Your task to perform on an android device: Go to ESPN.com Image 0: 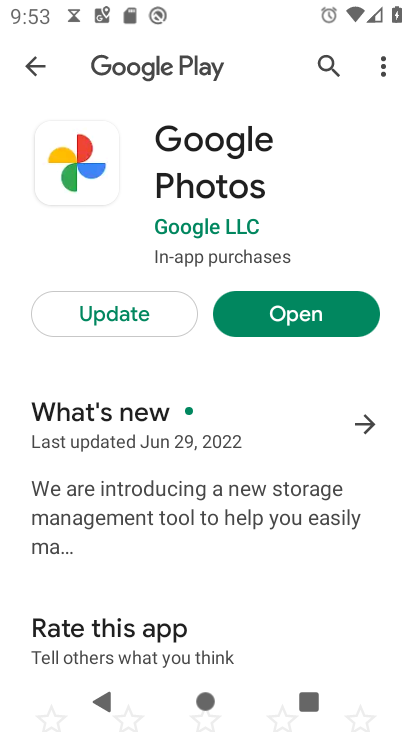
Step 0: press home button
Your task to perform on an android device: Go to ESPN.com Image 1: 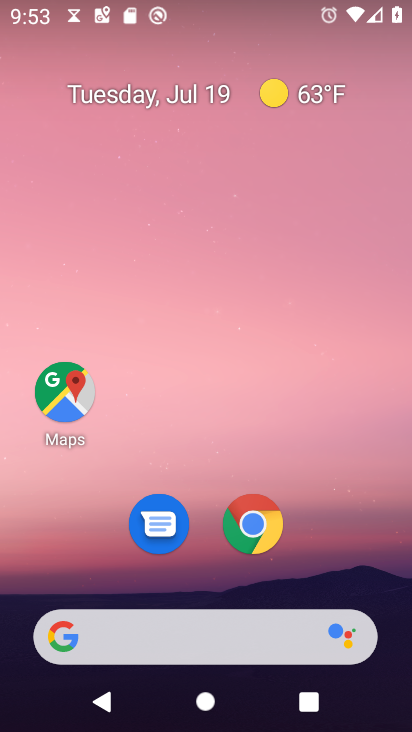
Step 1: click (255, 530)
Your task to perform on an android device: Go to ESPN.com Image 2: 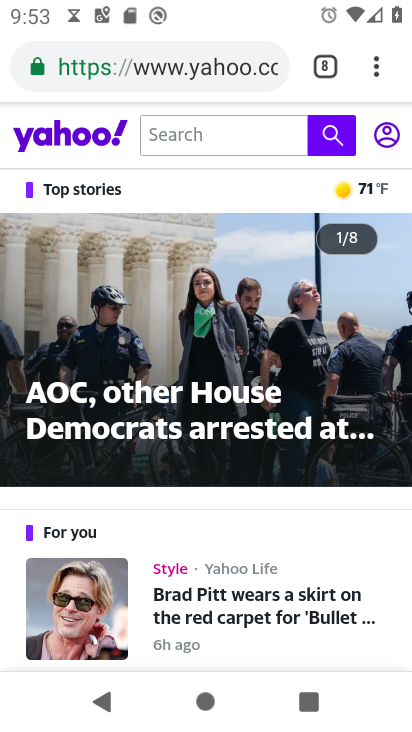
Step 2: drag from (375, 69) to (187, 123)
Your task to perform on an android device: Go to ESPN.com Image 3: 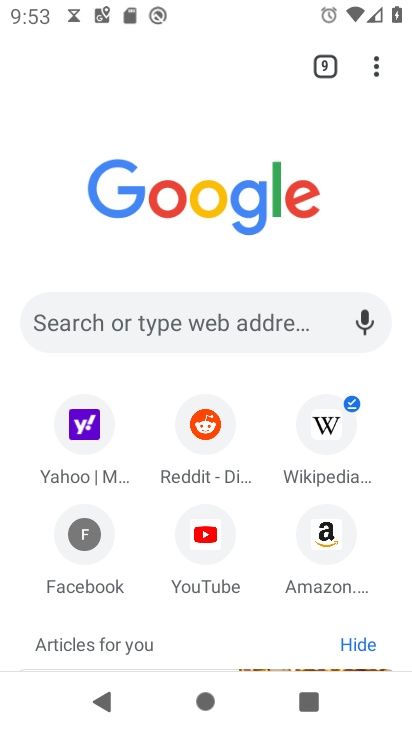
Step 3: drag from (259, 625) to (221, 625)
Your task to perform on an android device: Go to ESPN.com Image 4: 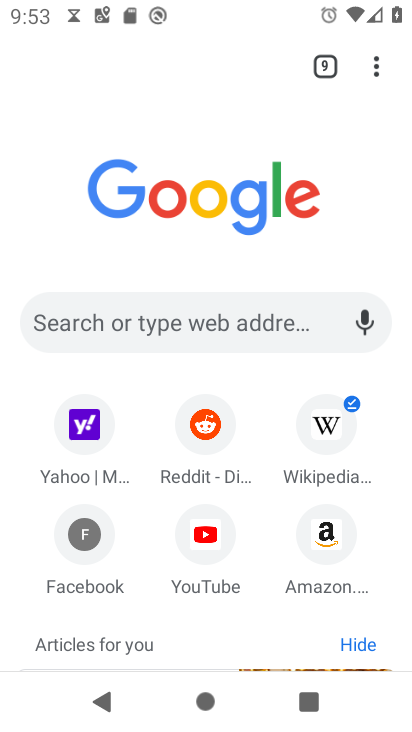
Step 4: click (173, 315)
Your task to perform on an android device: Go to ESPN.com Image 5: 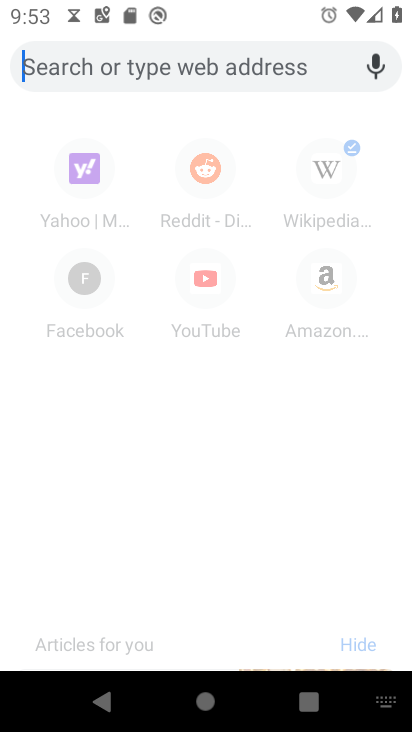
Step 5: type "espn.com"
Your task to perform on an android device: Go to ESPN.com Image 6: 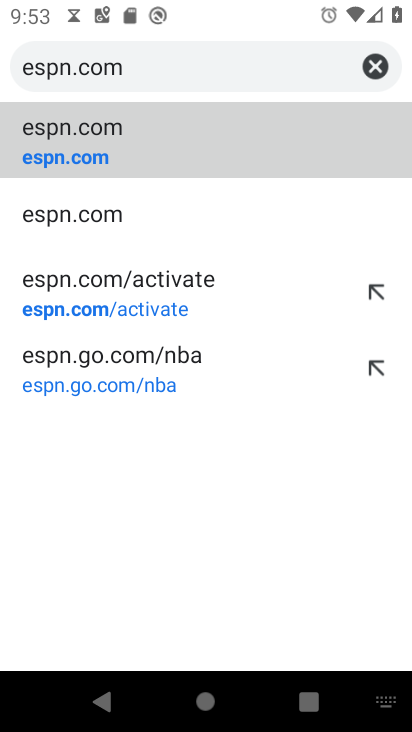
Step 6: click (33, 133)
Your task to perform on an android device: Go to ESPN.com Image 7: 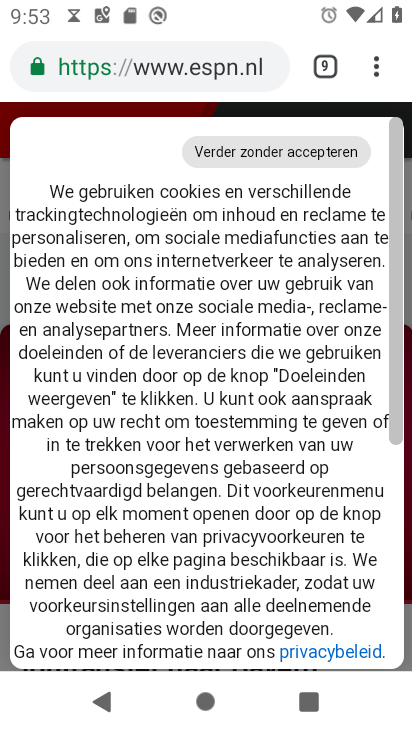
Step 7: task complete